Your task to perform on an android device: turn off improve location accuracy Image 0: 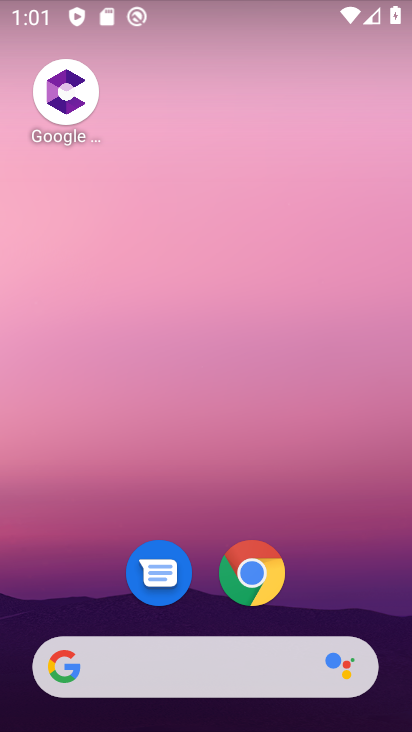
Step 0: drag from (350, 503) to (332, 135)
Your task to perform on an android device: turn off improve location accuracy Image 1: 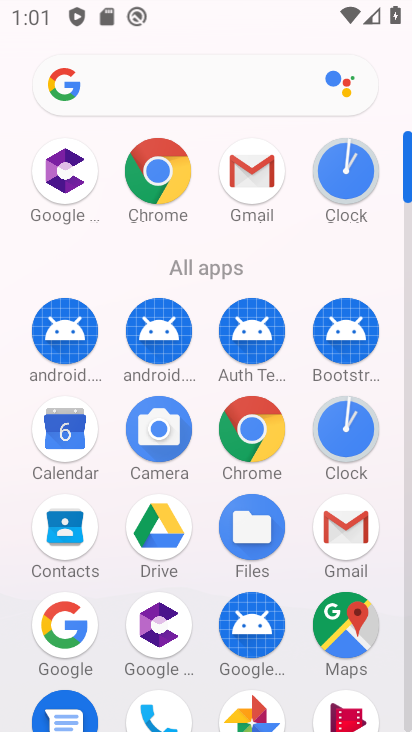
Step 1: drag from (199, 517) to (200, 268)
Your task to perform on an android device: turn off improve location accuracy Image 2: 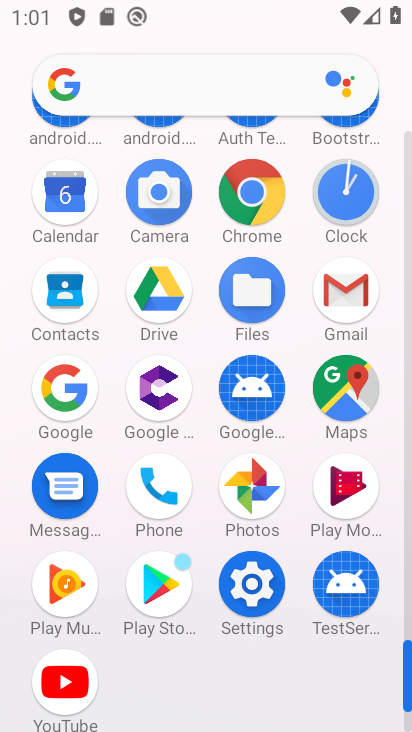
Step 2: click (262, 593)
Your task to perform on an android device: turn off improve location accuracy Image 3: 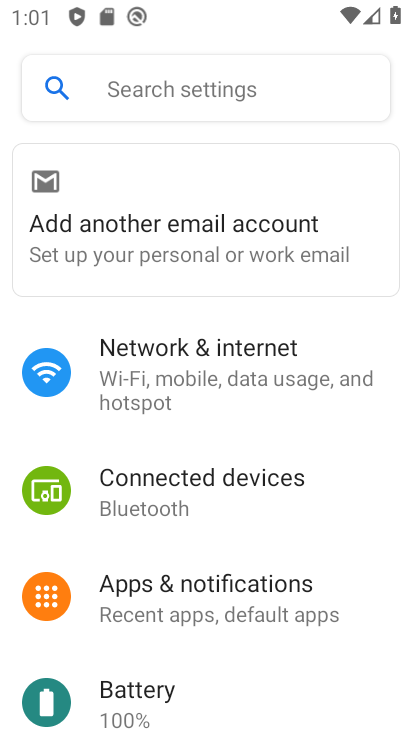
Step 3: drag from (349, 631) to (360, 501)
Your task to perform on an android device: turn off improve location accuracy Image 4: 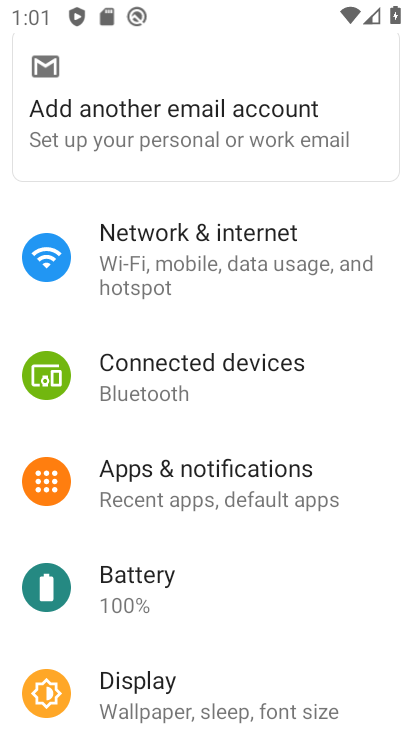
Step 4: drag from (355, 600) to (353, 448)
Your task to perform on an android device: turn off improve location accuracy Image 5: 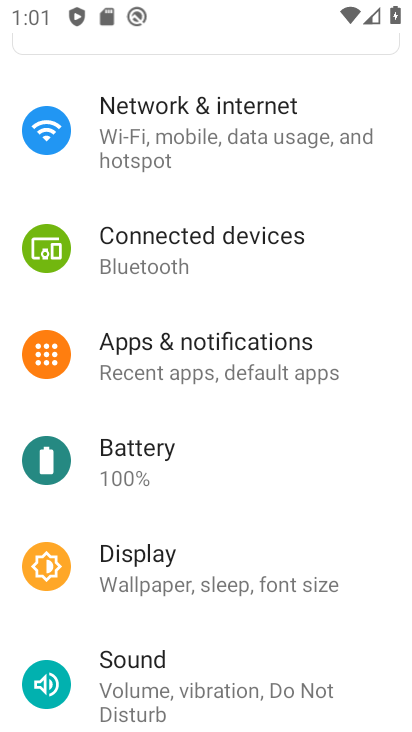
Step 5: drag from (357, 624) to (363, 479)
Your task to perform on an android device: turn off improve location accuracy Image 6: 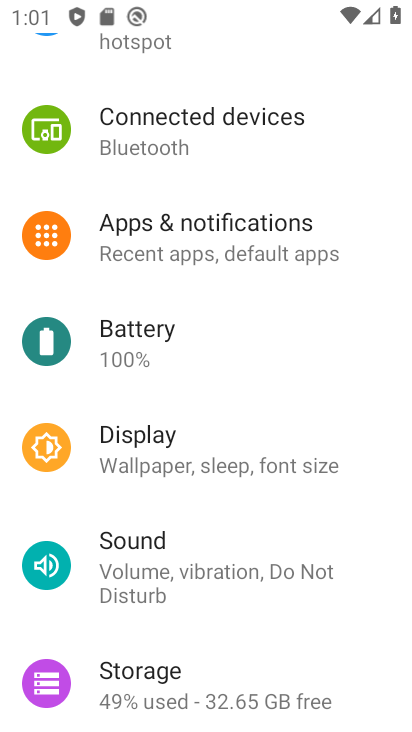
Step 6: drag from (340, 622) to (348, 466)
Your task to perform on an android device: turn off improve location accuracy Image 7: 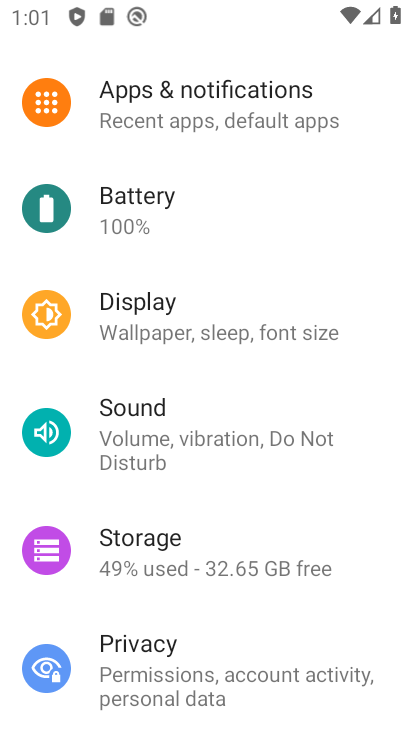
Step 7: drag from (361, 620) to (373, 437)
Your task to perform on an android device: turn off improve location accuracy Image 8: 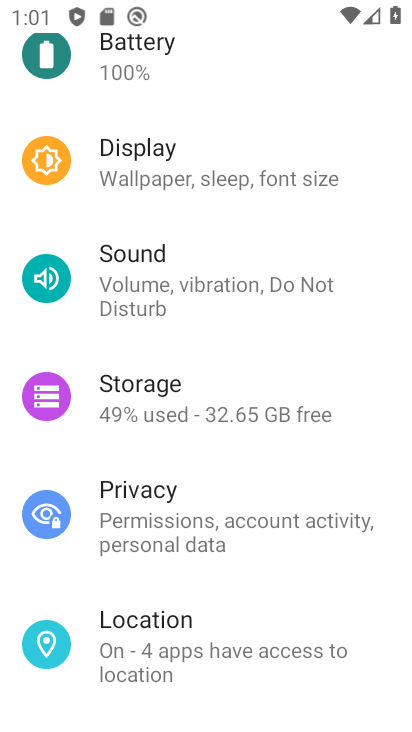
Step 8: click (247, 635)
Your task to perform on an android device: turn off improve location accuracy Image 9: 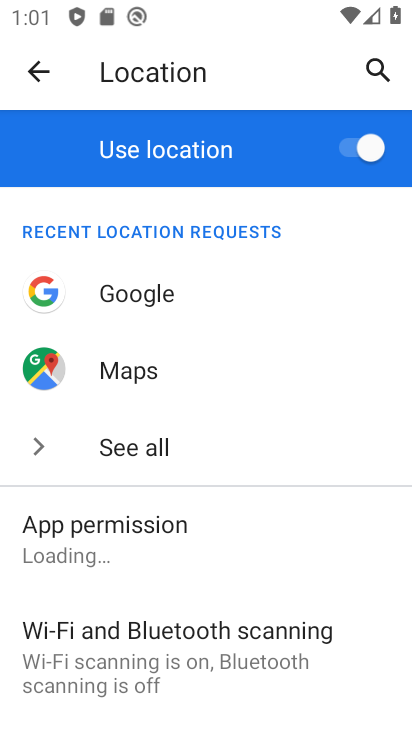
Step 9: drag from (296, 638) to (296, 438)
Your task to perform on an android device: turn off improve location accuracy Image 10: 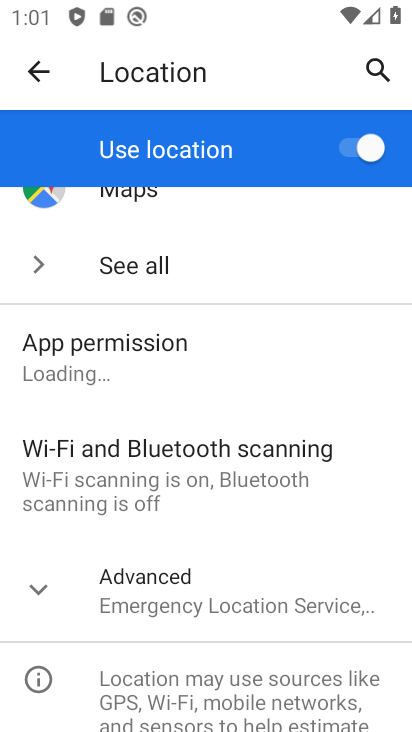
Step 10: click (254, 611)
Your task to perform on an android device: turn off improve location accuracy Image 11: 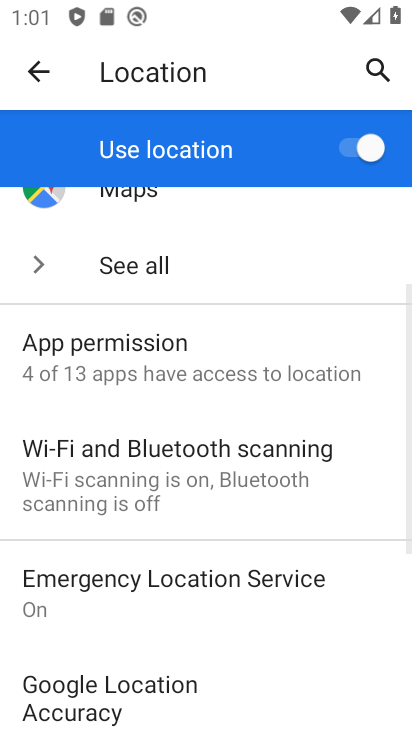
Step 11: drag from (264, 644) to (276, 308)
Your task to perform on an android device: turn off improve location accuracy Image 12: 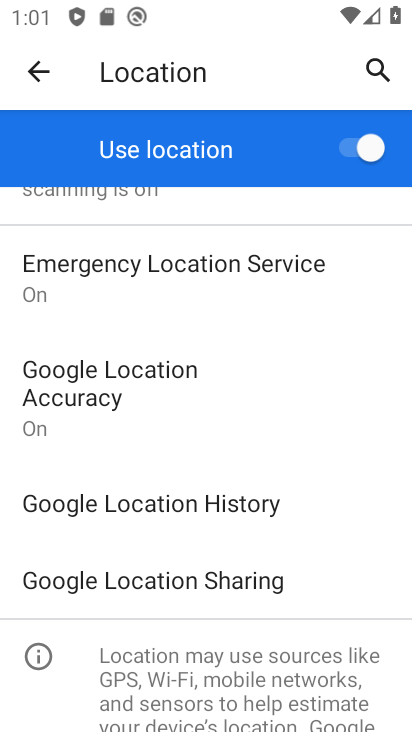
Step 12: click (130, 403)
Your task to perform on an android device: turn off improve location accuracy Image 13: 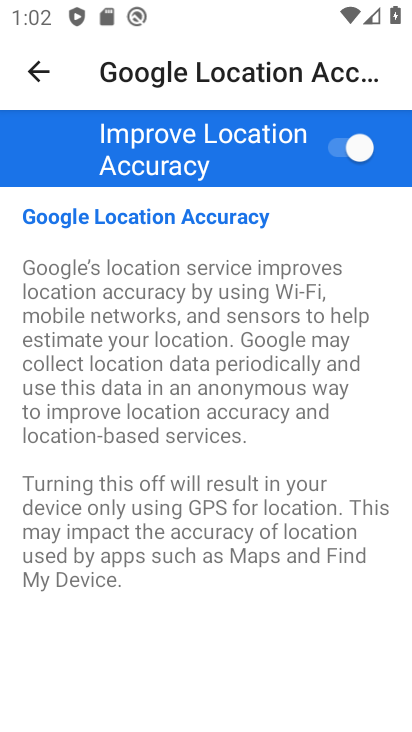
Step 13: click (356, 161)
Your task to perform on an android device: turn off improve location accuracy Image 14: 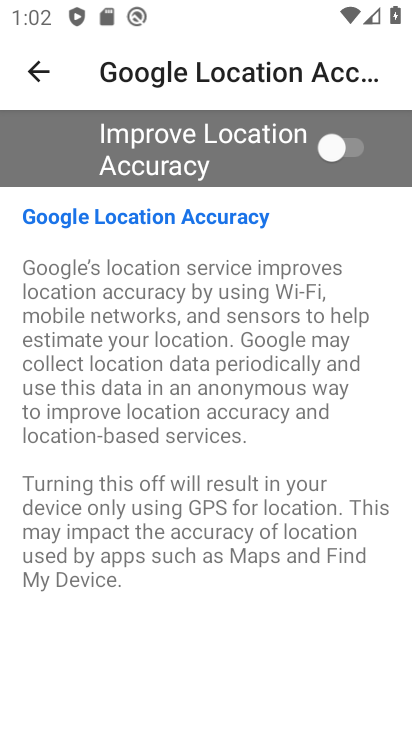
Step 14: task complete